Your task to perform on an android device: delete browsing data in the chrome app Image 0: 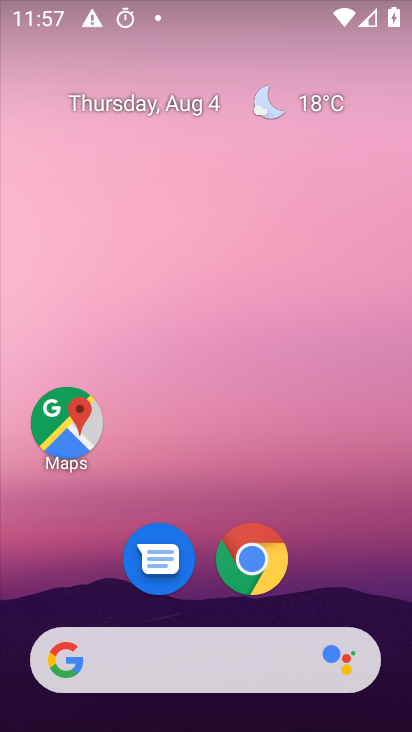
Step 0: click (244, 539)
Your task to perform on an android device: delete browsing data in the chrome app Image 1: 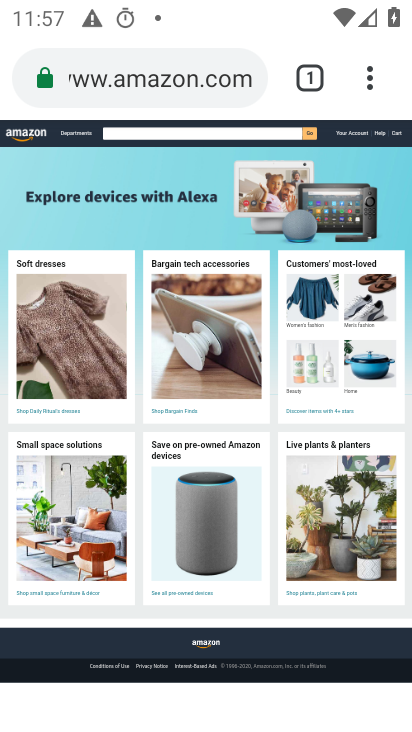
Step 1: click (375, 74)
Your task to perform on an android device: delete browsing data in the chrome app Image 2: 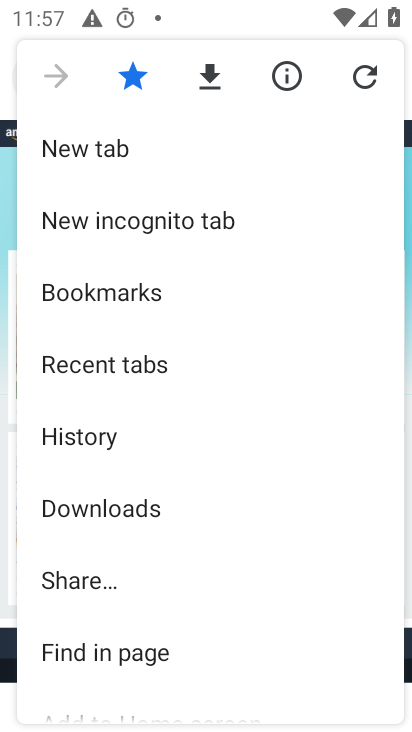
Step 2: click (70, 431)
Your task to perform on an android device: delete browsing data in the chrome app Image 3: 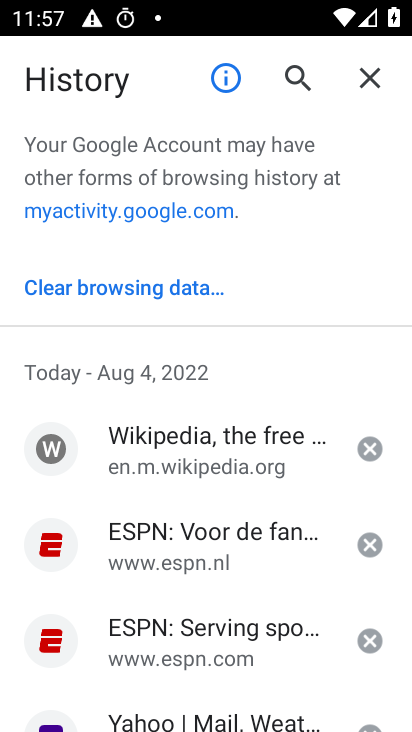
Step 3: click (80, 271)
Your task to perform on an android device: delete browsing data in the chrome app Image 4: 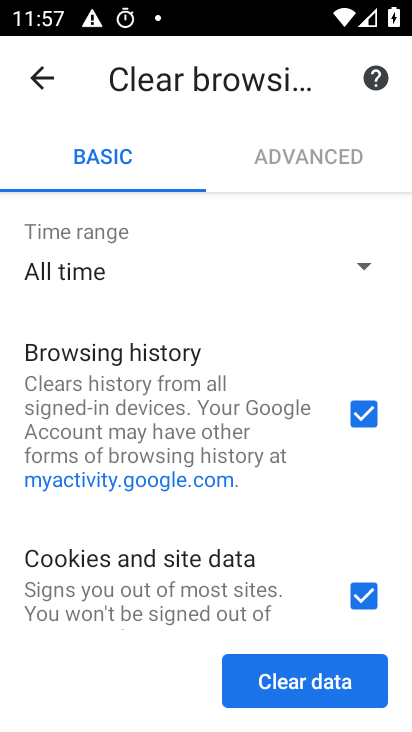
Step 4: click (373, 593)
Your task to perform on an android device: delete browsing data in the chrome app Image 5: 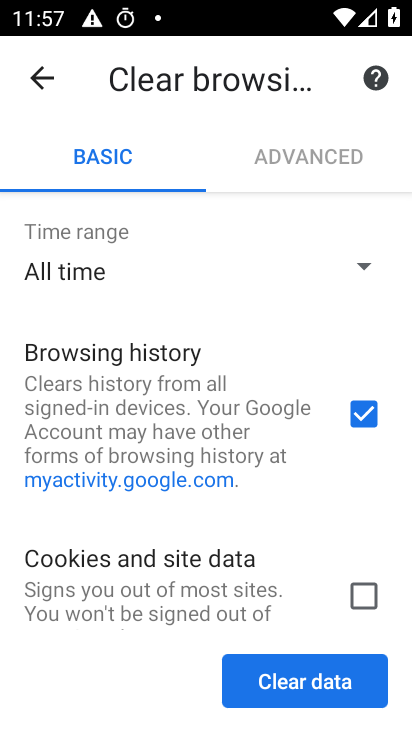
Step 5: drag from (176, 667) to (199, 229)
Your task to perform on an android device: delete browsing data in the chrome app Image 6: 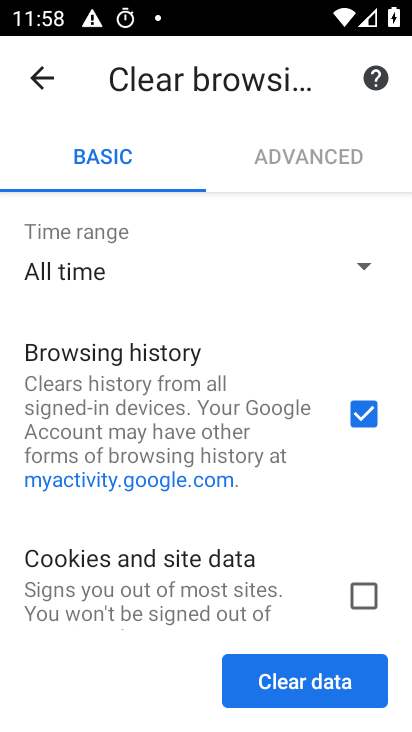
Step 6: click (40, 662)
Your task to perform on an android device: delete browsing data in the chrome app Image 7: 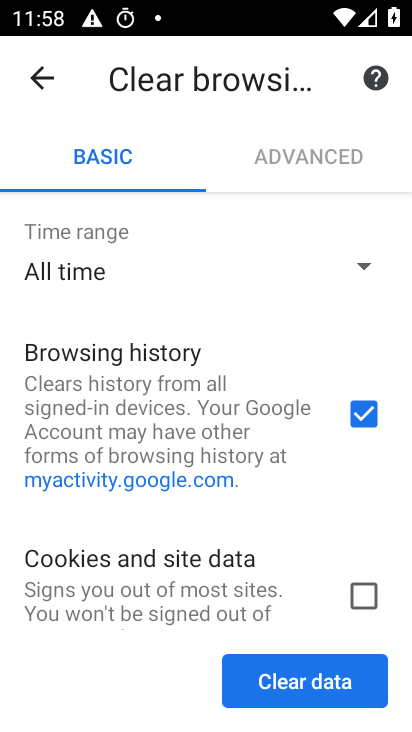
Step 7: drag from (40, 662) to (113, 264)
Your task to perform on an android device: delete browsing data in the chrome app Image 8: 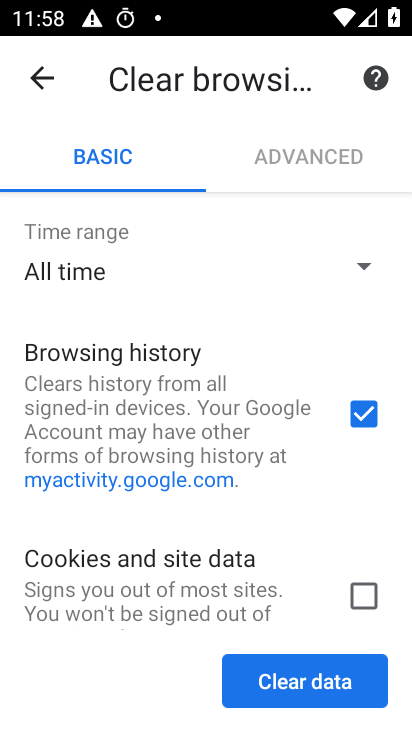
Step 8: click (278, 670)
Your task to perform on an android device: delete browsing data in the chrome app Image 9: 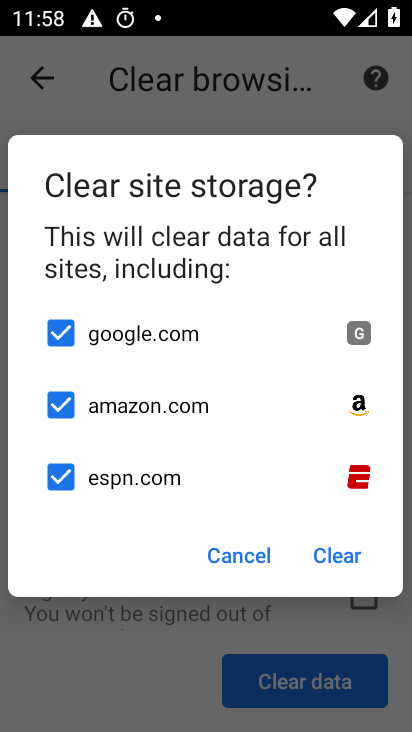
Step 9: click (329, 559)
Your task to perform on an android device: delete browsing data in the chrome app Image 10: 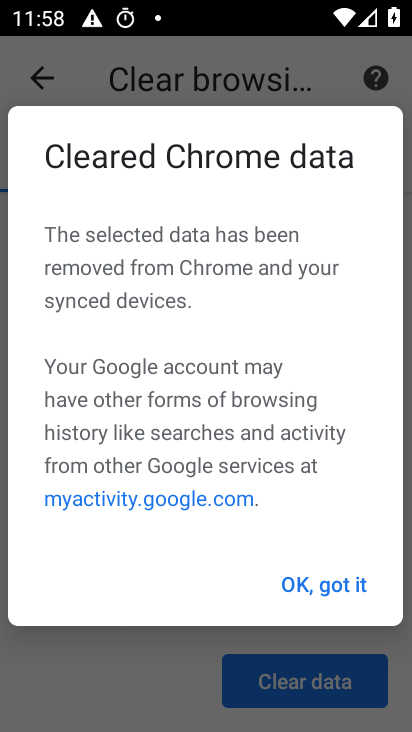
Step 10: click (337, 580)
Your task to perform on an android device: delete browsing data in the chrome app Image 11: 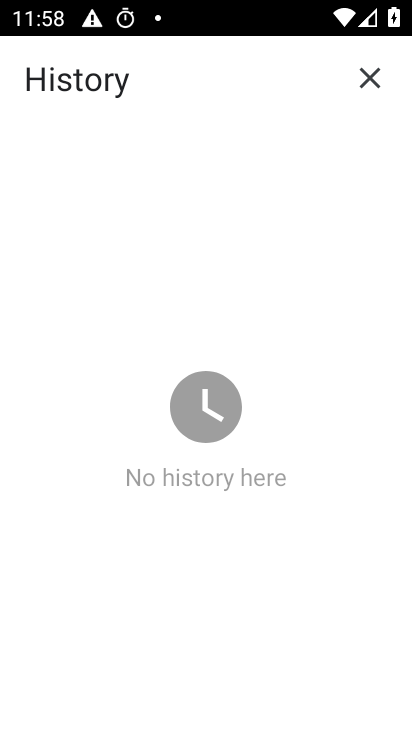
Step 11: task complete